Your task to perform on an android device: Open network settings Image 0: 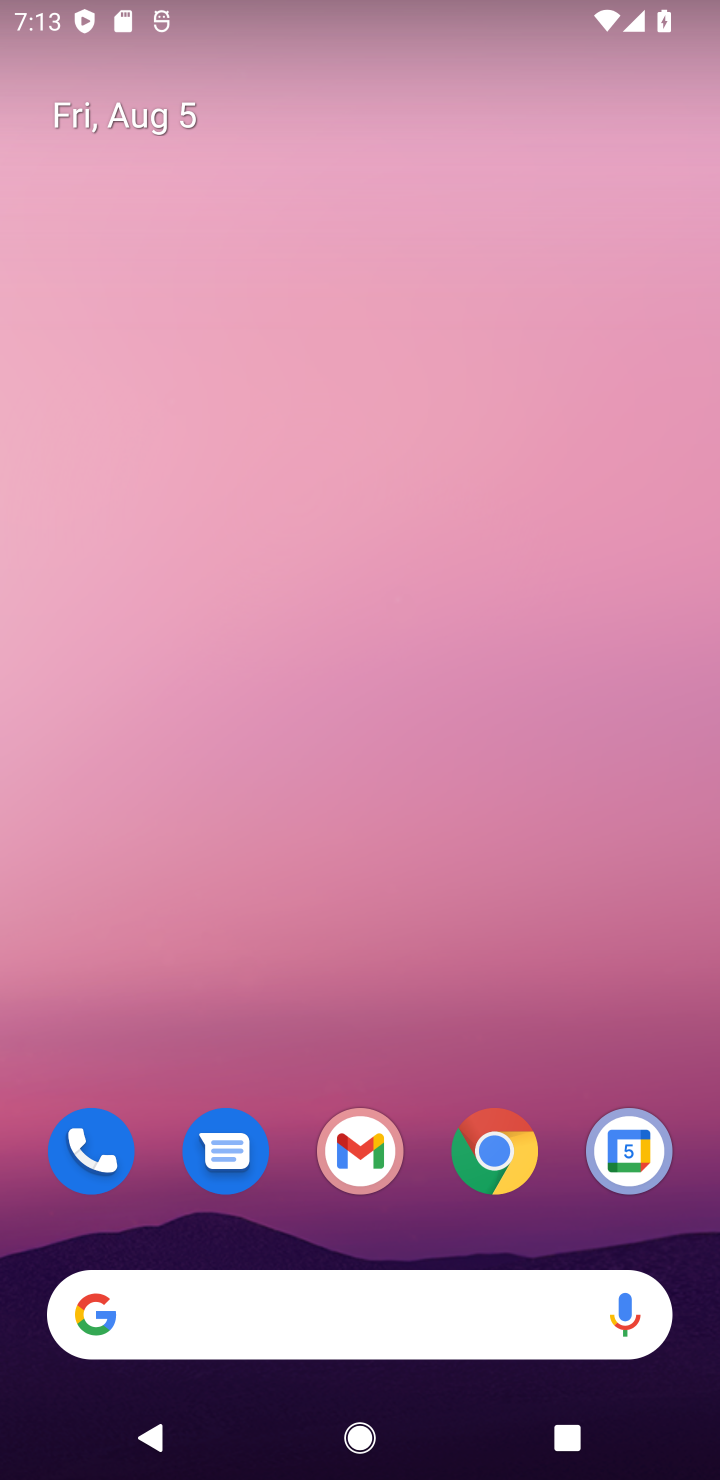
Step 0: drag from (389, 1111) to (702, 825)
Your task to perform on an android device: Open network settings Image 1: 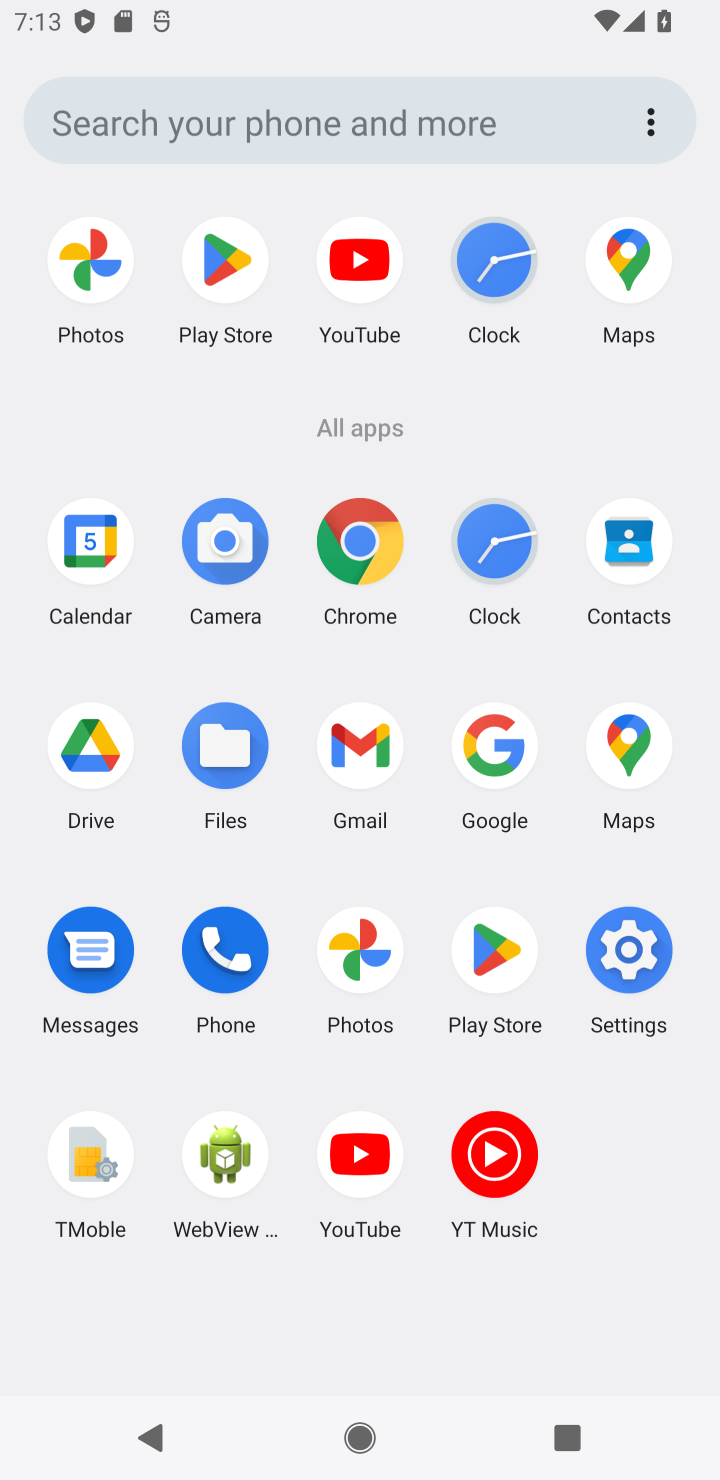
Step 1: click (626, 991)
Your task to perform on an android device: Open network settings Image 2: 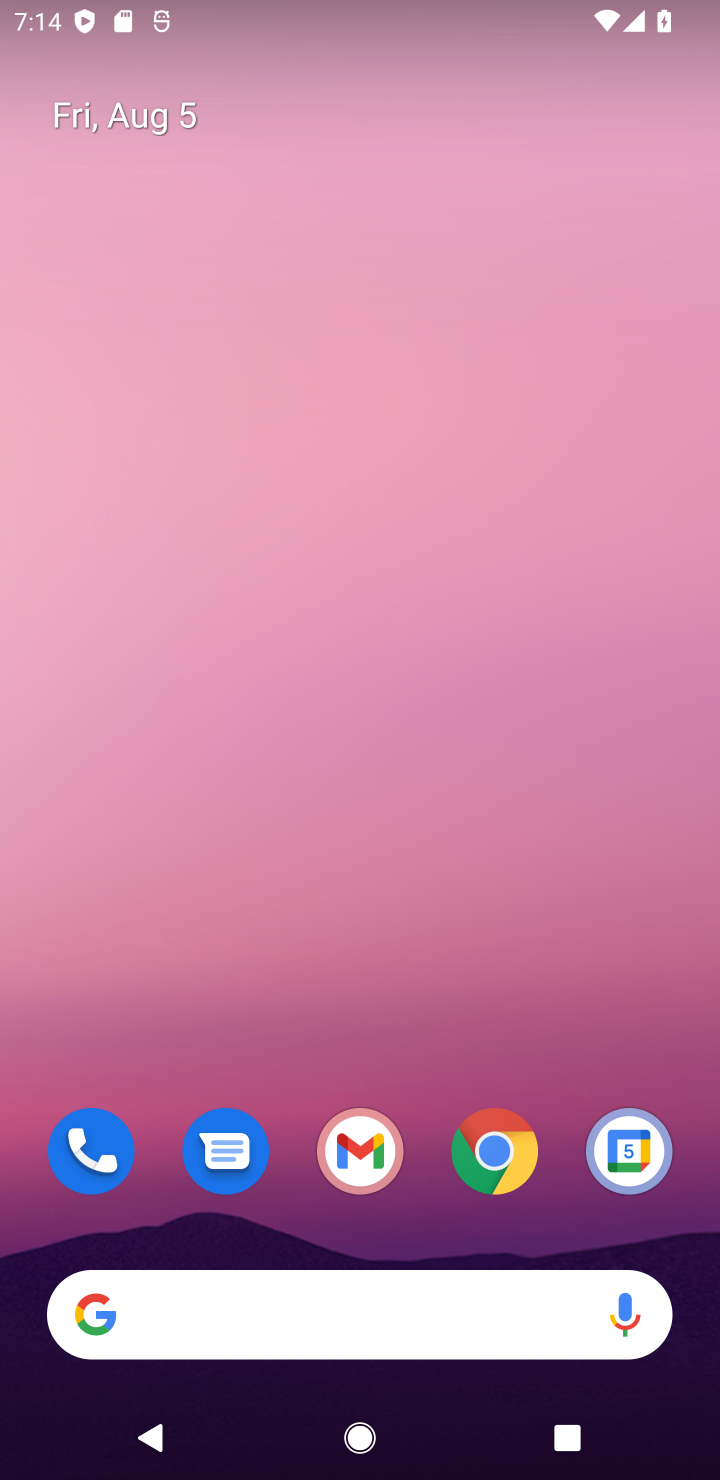
Step 2: drag from (341, 1248) to (369, 17)
Your task to perform on an android device: Open network settings Image 3: 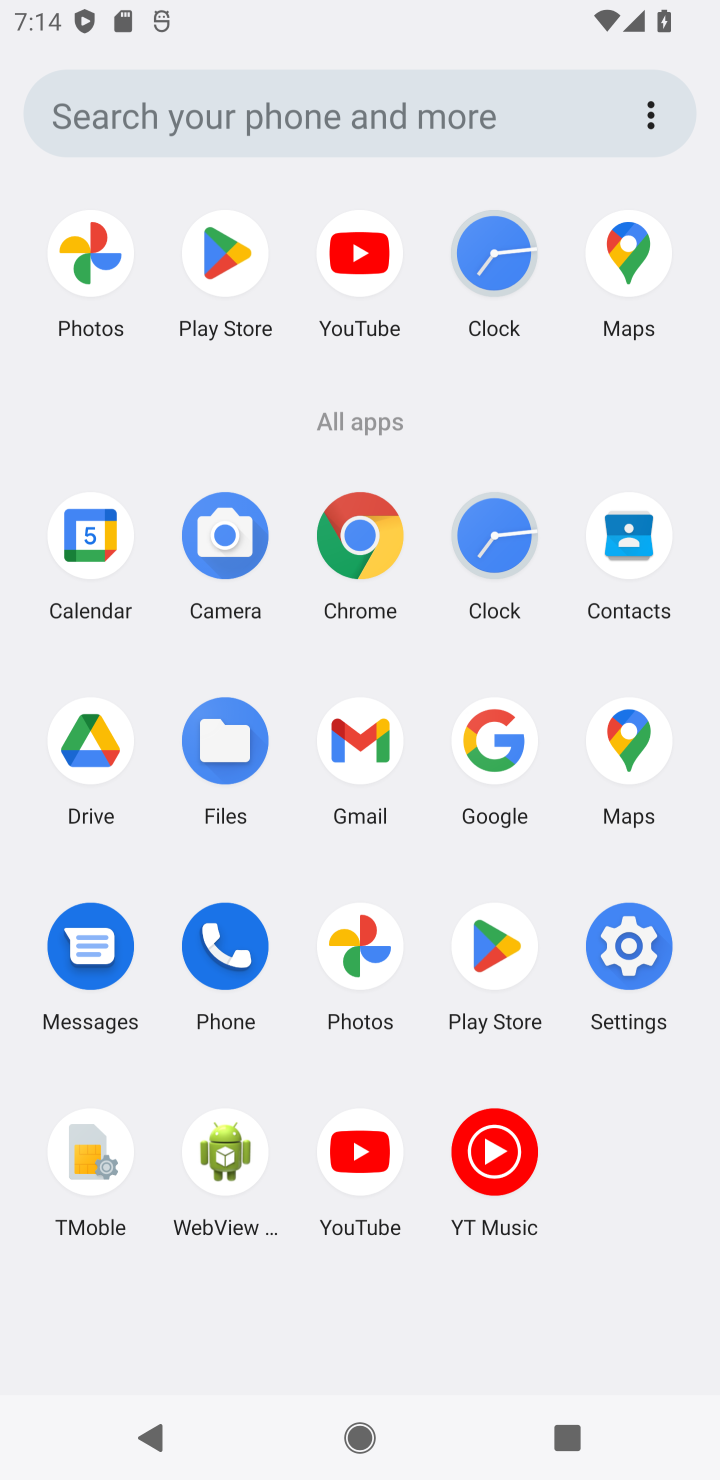
Step 3: click (634, 941)
Your task to perform on an android device: Open network settings Image 4: 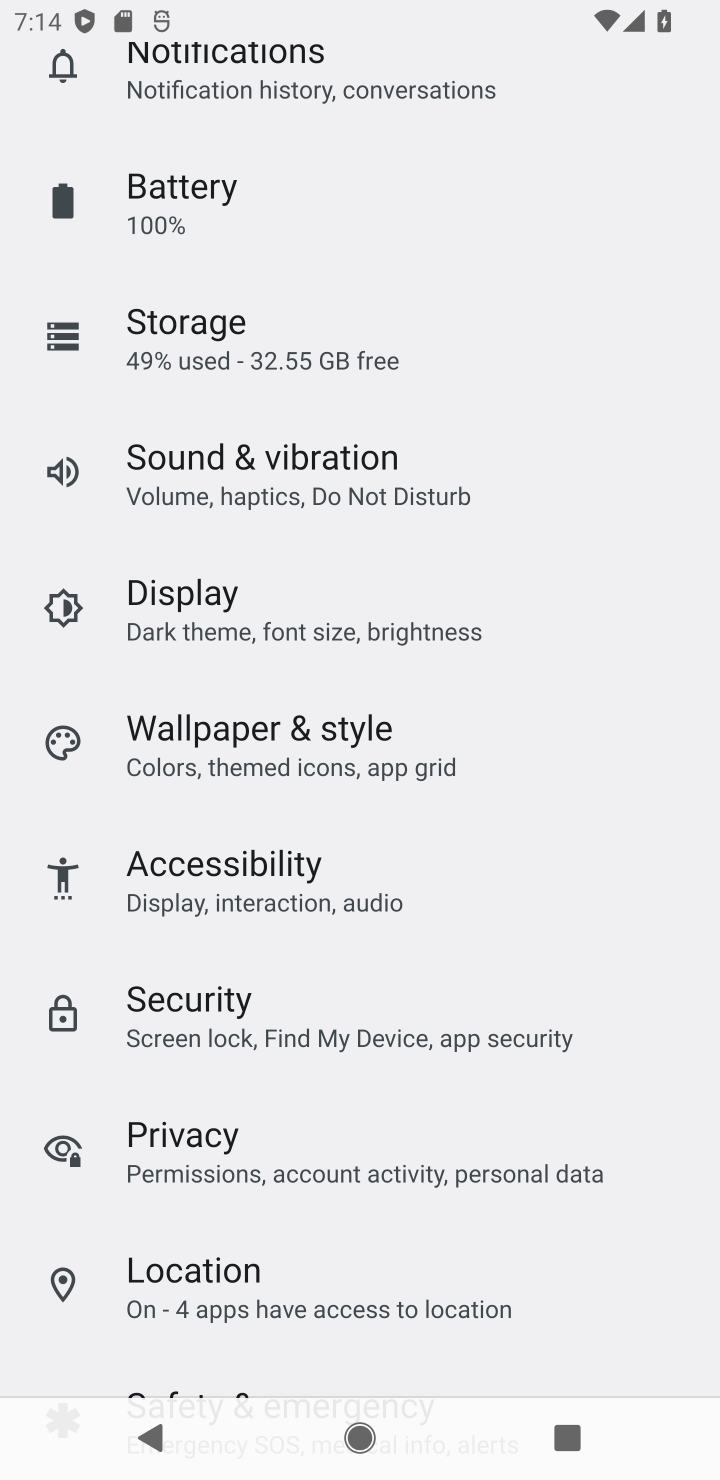
Step 4: drag from (351, 185) to (287, 1001)
Your task to perform on an android device: Open network settings Image 5: 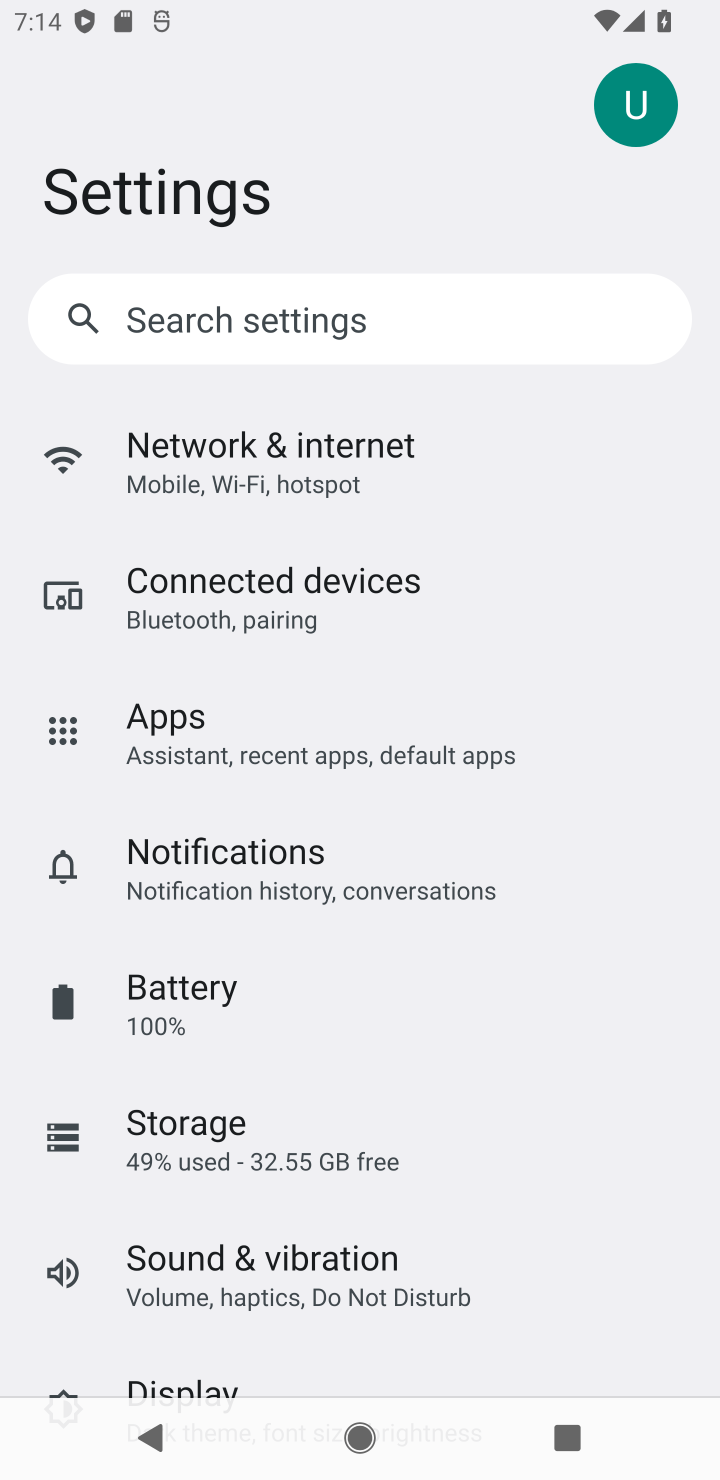
Step 5: drag from (223, 211) to (225, 1103)
Your task to perform on an android device: Open network settings Image 6: 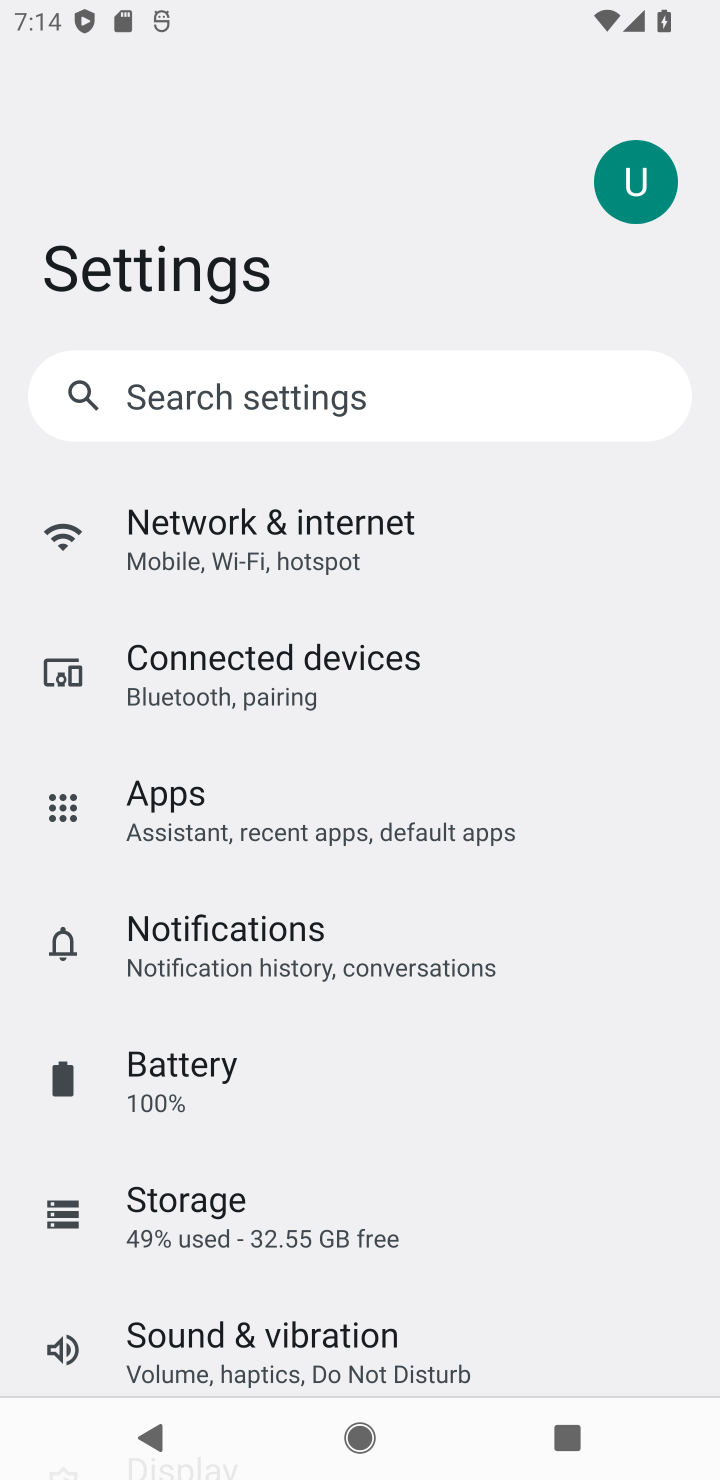
Step 6: click (219, 511)
Your task to perform on an android device: Open network settings Image 7: 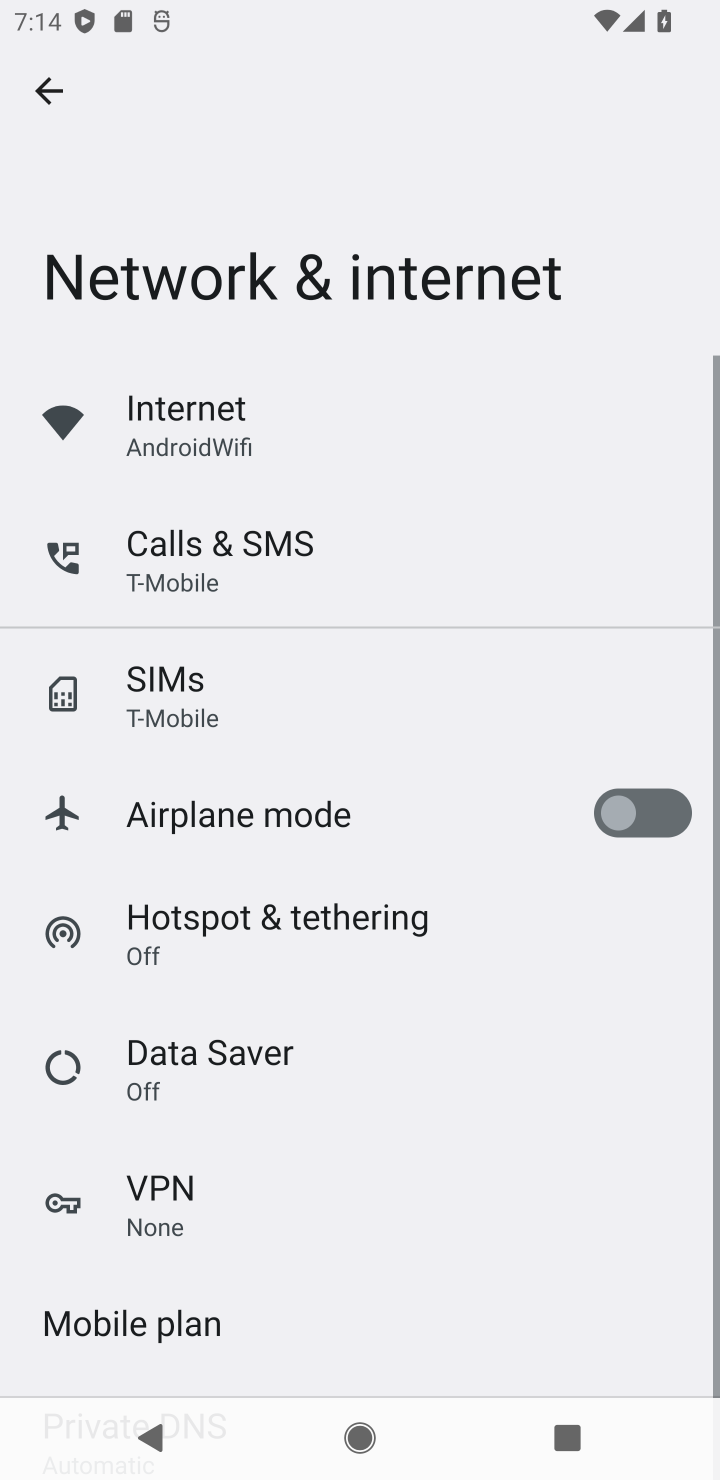
Step 7: click (221, 421)
Your task to perform on an android device: Open network settings Image 8: 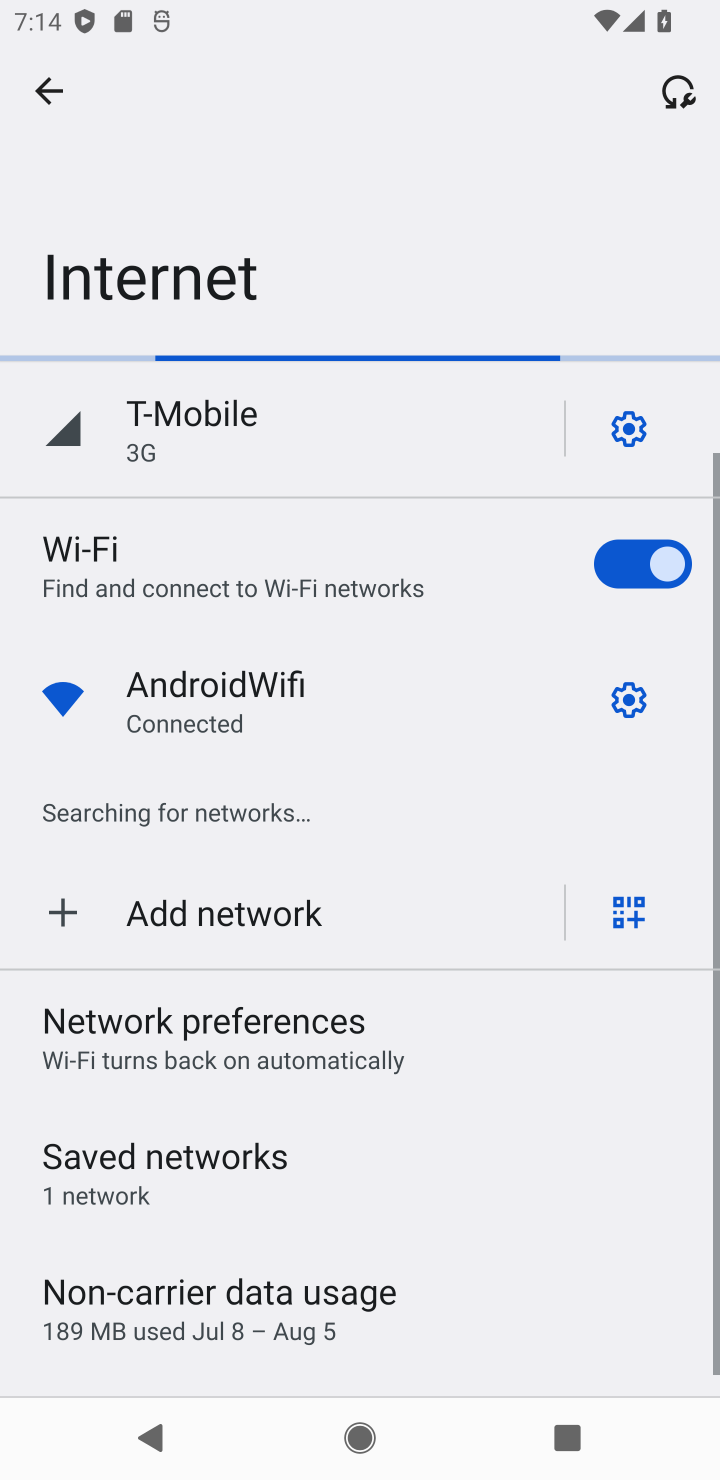
Step 8: task complete